Your task to perform on an android device: Clear the cart on ebay. Add razer blade to the cart on ebay, then select checkout. Image 0: 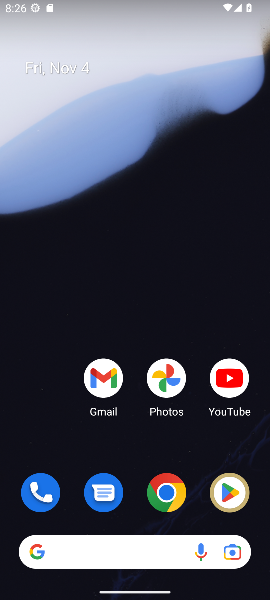
Step 0: drag from (130, 444) to (169, 0)
Your task to perform on an android device: Clear the cart on ebay. Add razer blade to the cart on ebay, then select checkout. Image 1: 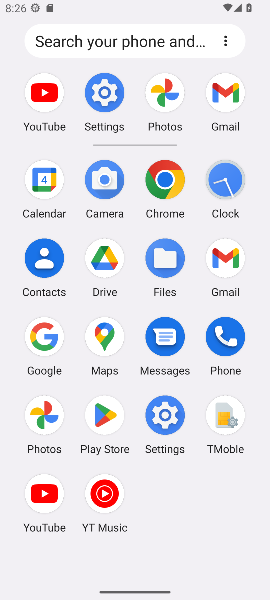
Step 1: click (166, 180)
Your task to perform on an android device: Clear the cart on ebay. Add razer blade to the cart on ebay, then select checkout. Image 2: 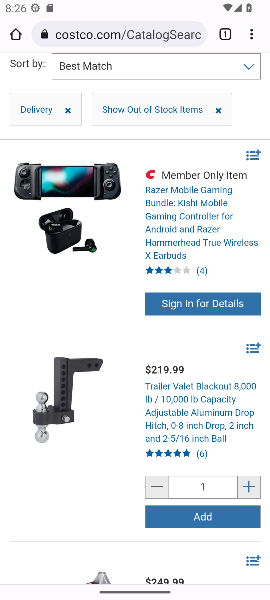
Step 2: click (158, 34)
Your task to perform on an android device: Clear the cart on ebay. Add razer blade to the cart on ebay, then select checkout. Image 3: 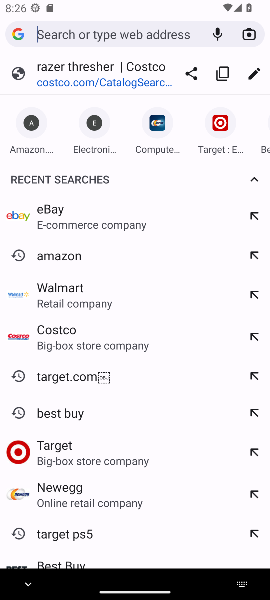
Step 3: type "ebay.com"
Your task to perform on an android device: Clear the cart on ebay. Add razer blade to the cart on ebay, then select checkout. Image 4: 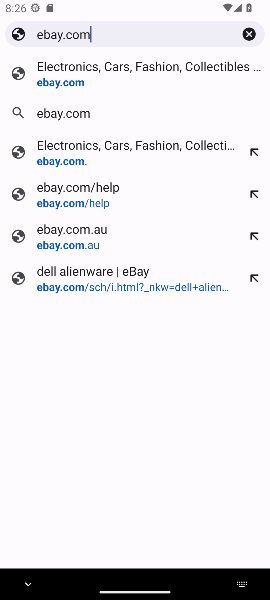
Step 4: press enter
Your task to perform on an android device: Clear the cart on ebay. Add razer blade to the cart on ebay, then select checkout. Image 5: 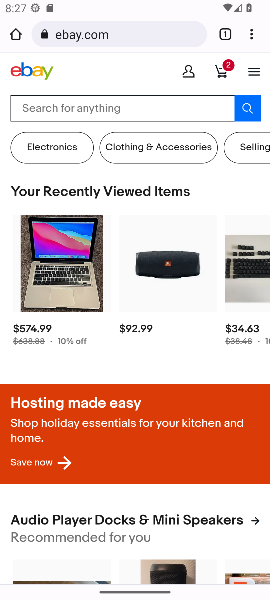
Step 5: click (226, 68)
Your task to perform on an android device: Clear the cart on ebay. Add razer blade to the cart on ebay, then select checkout. Image 6: 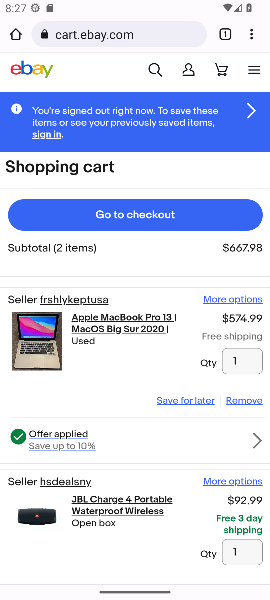
Step 6: click (244, 398)
Your task to perform on an android device: Clear the cart on ebay. Add razer blade to the cart on ebay, then select checkout. Image 7: 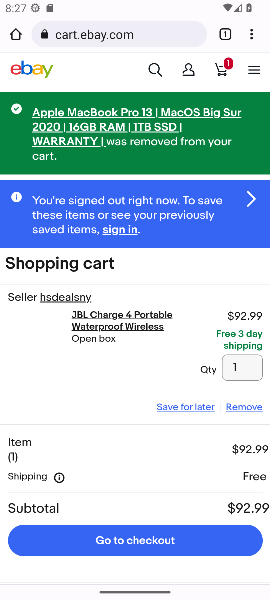
Step 7: click (241, 408)
Your task to perform on an android device: Clear the cart on ebay. Add razer blade to the cart on ebay, then select checkout. Image 8: 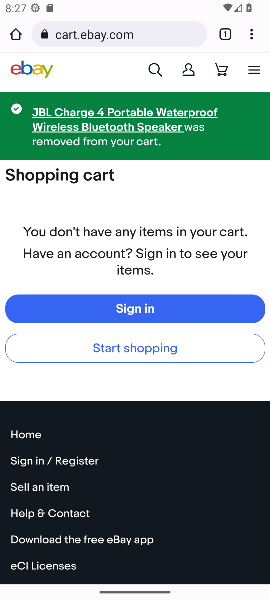
Step 8: click (158, 71)
Your task to perform on an android device: Clear the cart on ebay. Add razer blade to the cart on ebay, then select checkout. Image 9: 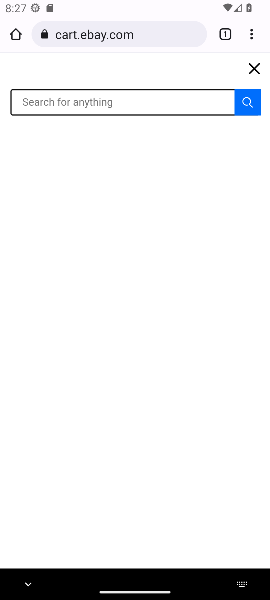
Step 9: type ""
Your task to perform on an android device: Clear the cart on ebay. Add razer blade to the cart on ebay, then select checkout. Image 10: 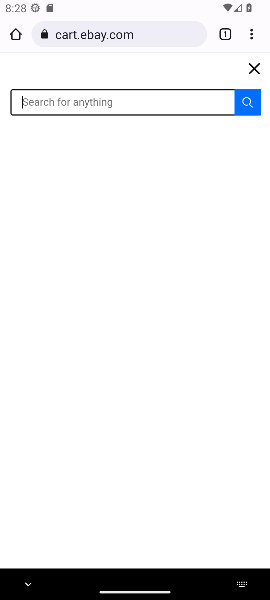
Step 10: type "razer blade"
Your task to perform on an android device: Clear the cart on ebay. Add razer blade to the cart on ebay, then select checkout. Image 11: 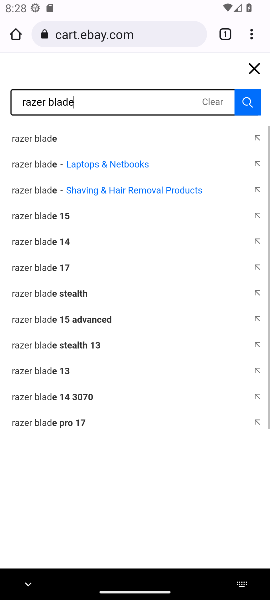
Step 11: click (253, 100)
Your task to perform on an android device: Clear the cart on ebay. Add razer blade to the cart on ebay, then select checkout. Image 12: 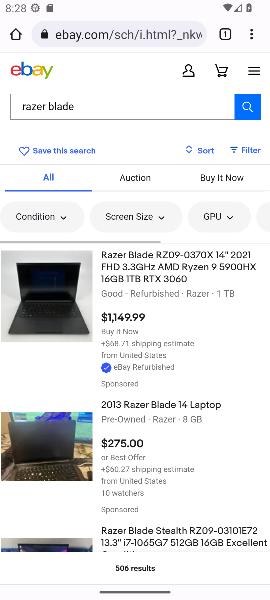
Step 12: click (206, 265)
Your task to perform on an android device: Clear the cart on ebay. Add razer blade to the cart on ebay, then select checkout. Image 13: 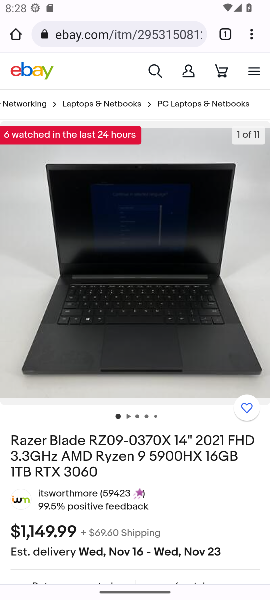
Step 13: drag from (178, 383) to (191, 117)
Your task to perform on an android device: Clear the cart on ebay. Add razer blade to the cart on ebay, then select checkout. Image 14: 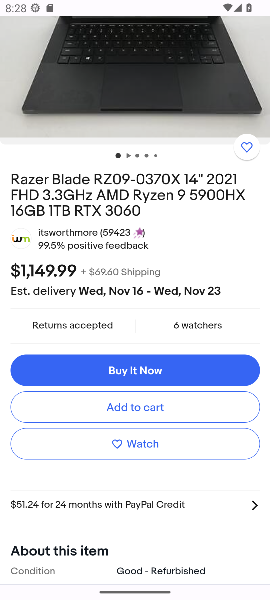
Step 14: click (190, 408)
Your task to perform on an android device: Clear the cart on ebay. Add razer blade to the cart on ebay, then select checkout. Image 15: 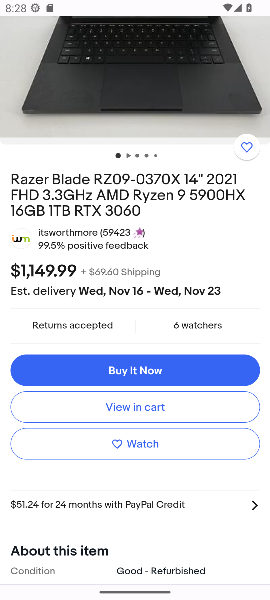
Step 15: click (194, 407)
Your task to perform on an android device: Clear the cart on ebay. Add razer blade to the cart on ebay, then select checkout. Image 16: 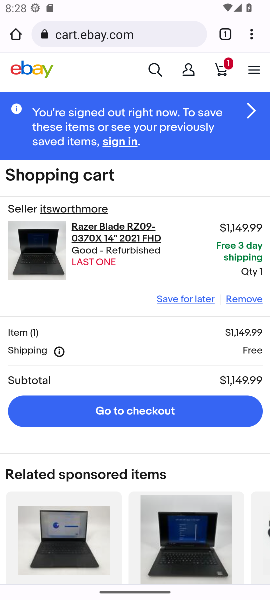
Step 16: click (175, 410)
Your task to perform on an android device: Clear the cart on ebay. Add razer blade to the cart on ebay, then select checkout. Image 17: 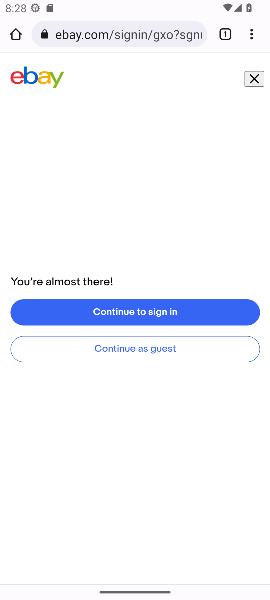
Step 17: task complete